Your task to perform on an android device: make emails show in primary in the gmail app Image 0: 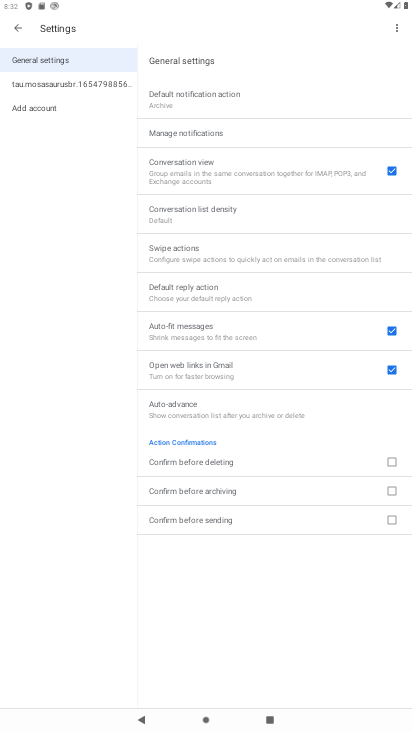
Step 0: press home button
Your task to perform on an android device: make emails show in primary in the gmail app Image 1: 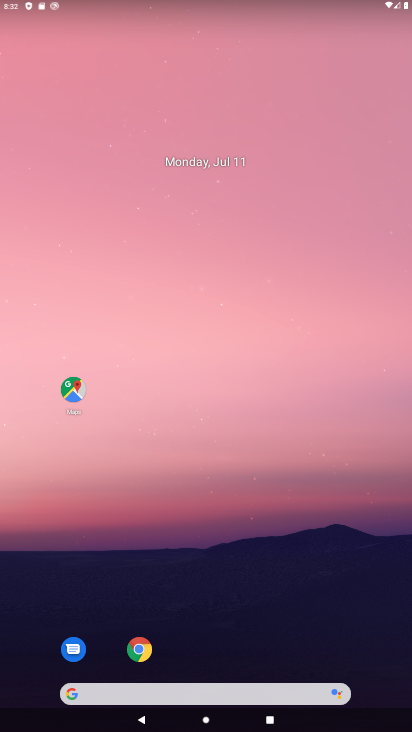
Step 1: drag from (214, 689) to (227, 152)
Your task to perform on an android device: make emails show in primary in the gmail app Image 2: 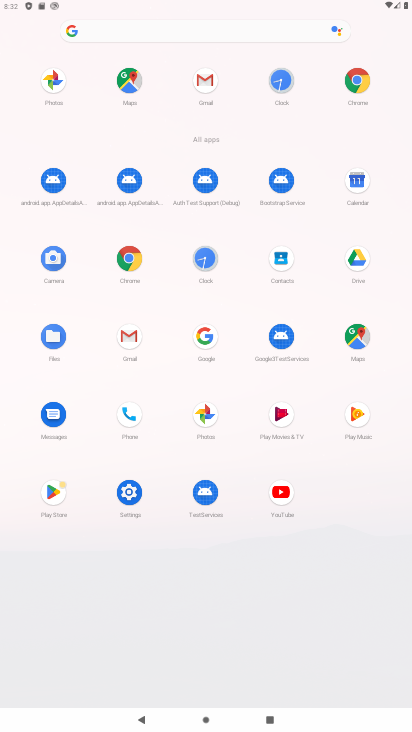
Step 2: click (203, 80)
Your task to perform on an android device: make emails show in primary in the gmail app Image 3: 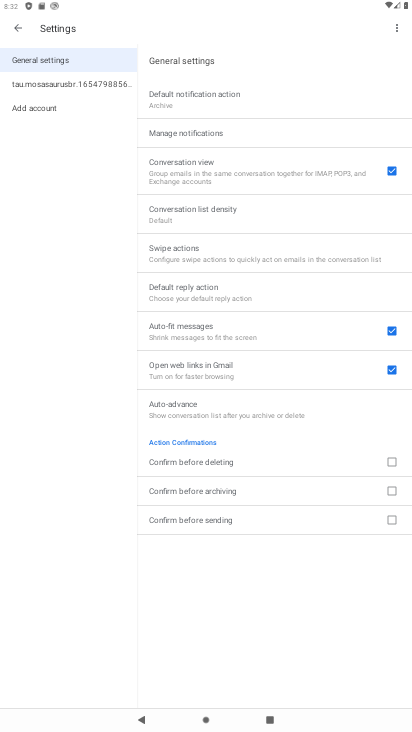
Step 3: press back button
Your task to perform on an android device: make emails show in primary in the gmail app Image 4: 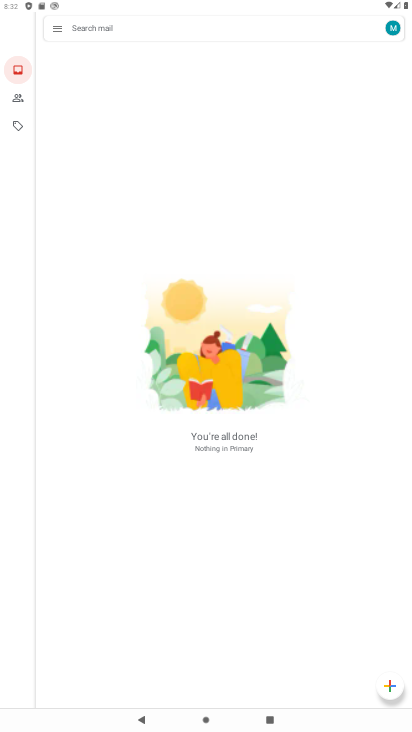
Step 4: click (52, 28)
Your task to perform on an android device: make emails show in primary in the gmail app Image 5: 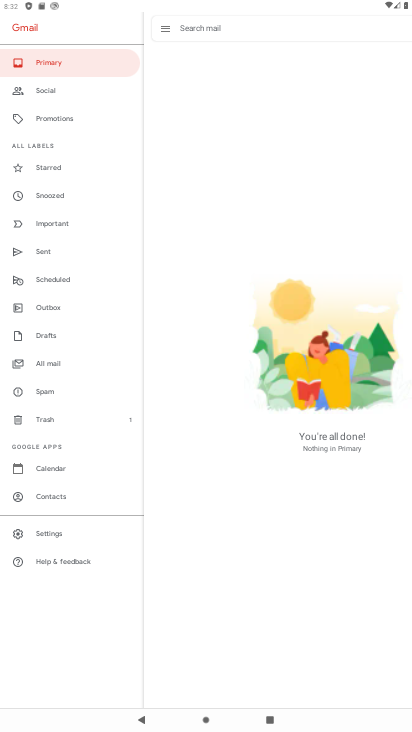
Step 5: click (71, 66)
Your task to perform on an android device: make emails show in primary in the gmail app Image 6: 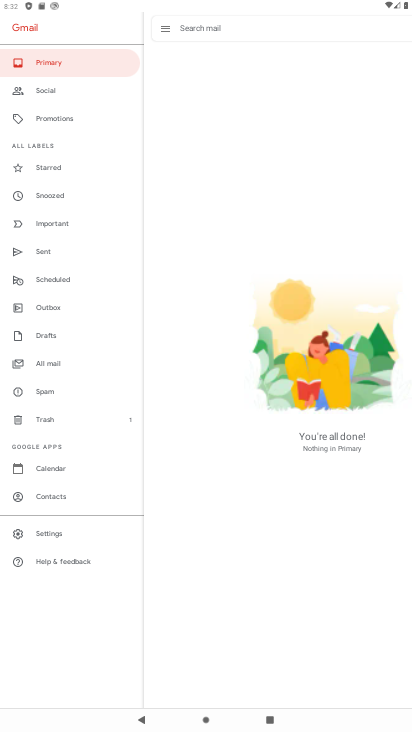
Step 6: task complete